Your task to perform on an android device: turn notification dots on Image 0: 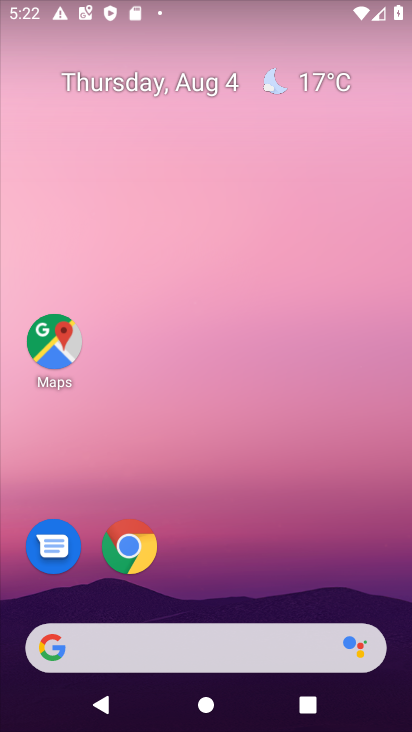
Step 0: drag from (168, 582) to (232, 42)
Your task to perform on an android device: turn notification dots on Image 1: 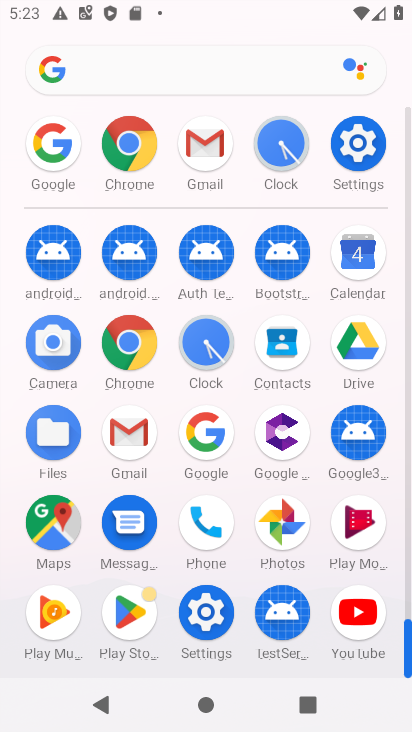
Step 1: click (369, 132)
Your task to perform on an android device: turn notification dots on Image 2: 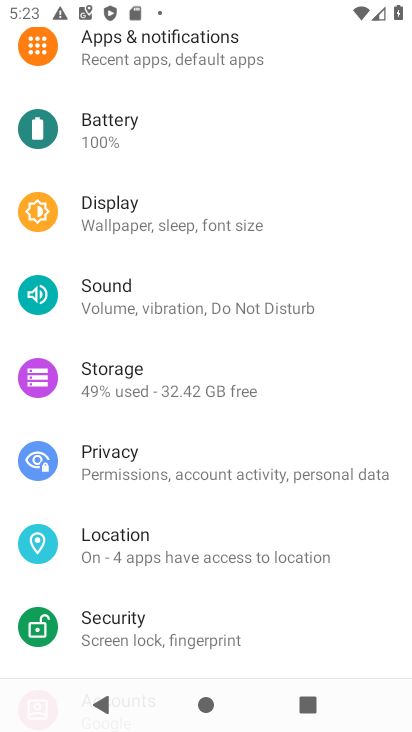
Step 2: click (218, 34)
Your task to perform on an android device: turn notification dots on Image 3: 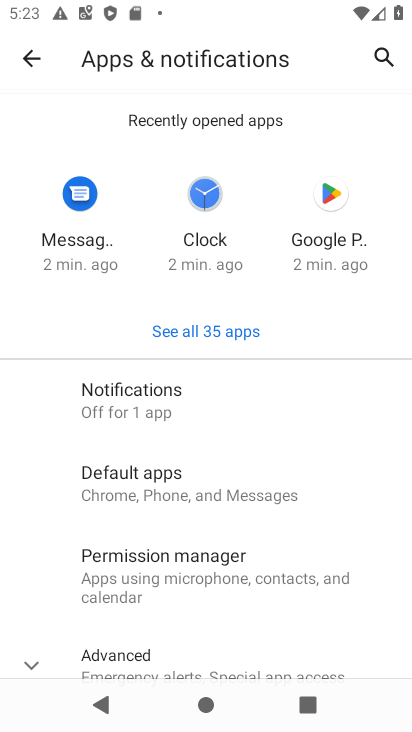
Step 3: click (169, 416)
Your task to perform on an android device: turn notification dots on Image 4: 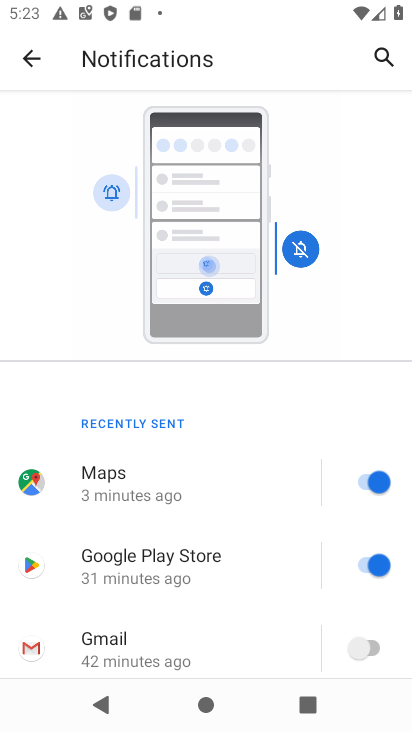
Step 4: drag from (182, 425) to (293, 219)
Your task to perform on an android device: turn notification dots on Image 5: 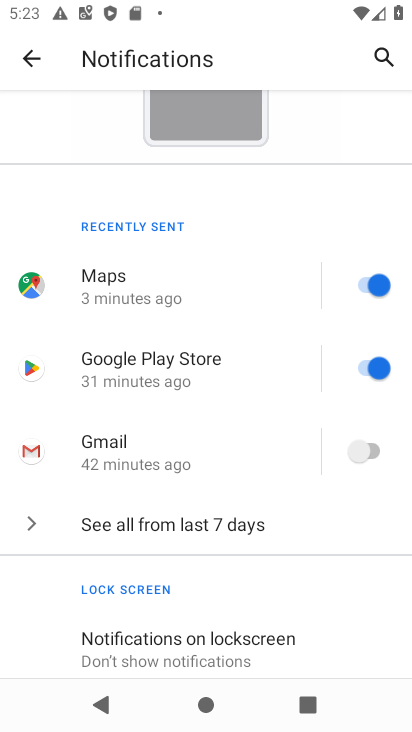
Step 5: drag from (216, 525) to (269, 337)
Your task to perform on an android device: turn notification dots on Image 6: 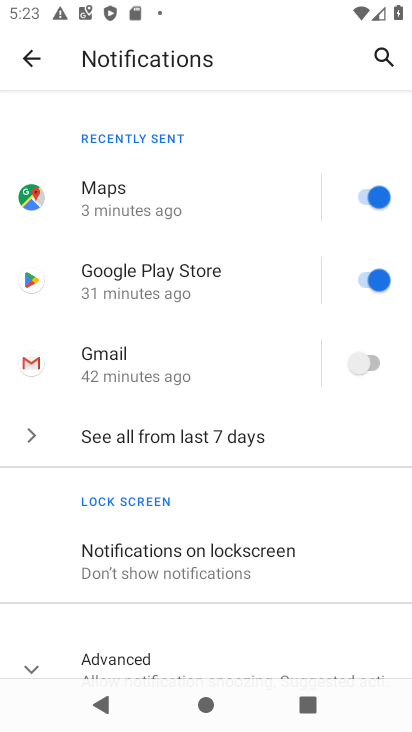
Step 6: drag from (151, 502) to (182, 420)
Your task to perform on an android device: turn notification dots on Image 7: 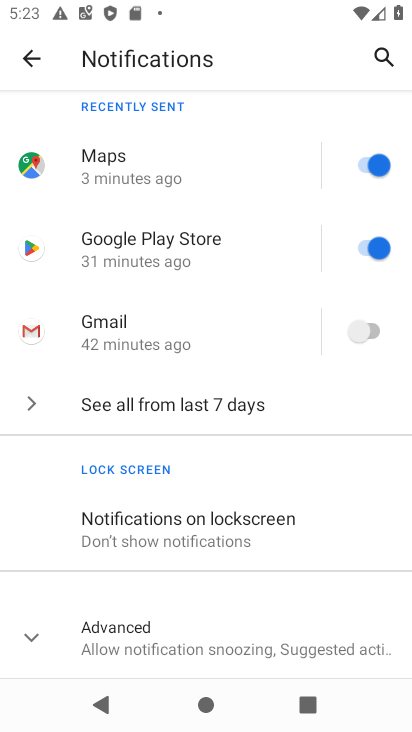
Step 7: click (97, 637)
Your task to perform on an android device: turn notification dots on Image 8: 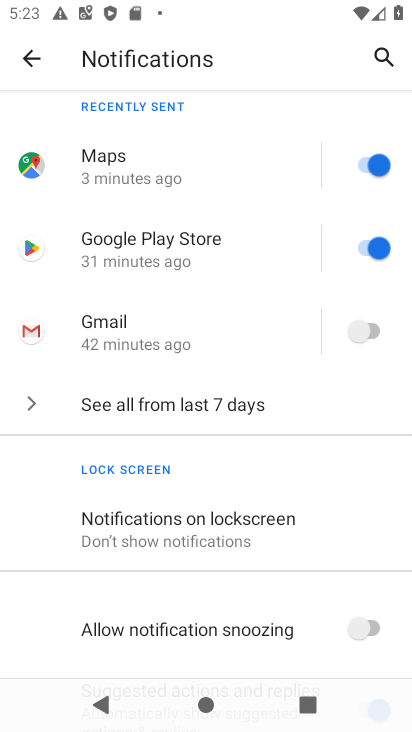
Step 8: task complete